Your task to perform on an android device: Go to ESPN.com Image 0: 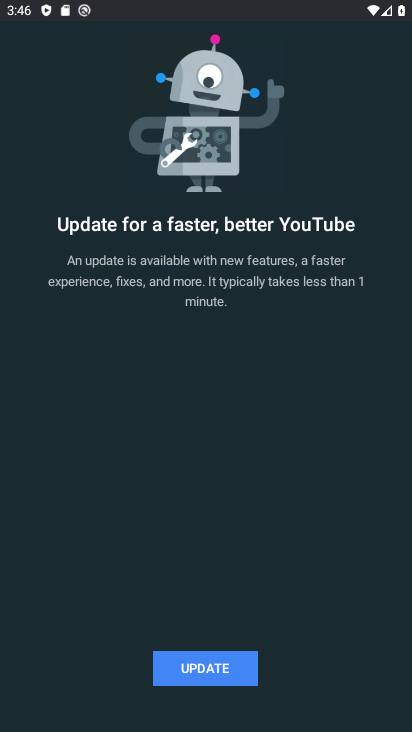
Step 0: press home button
Your task to perform on an android device: Go to ESPN.com Image 1: 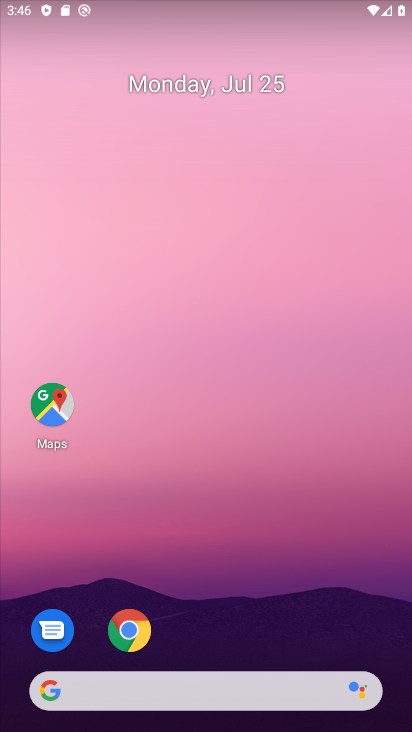
Step 1: drag from (236, 641) to (231, 107)
Your task to perform on an android device: Go to ESPN.com Image 2: 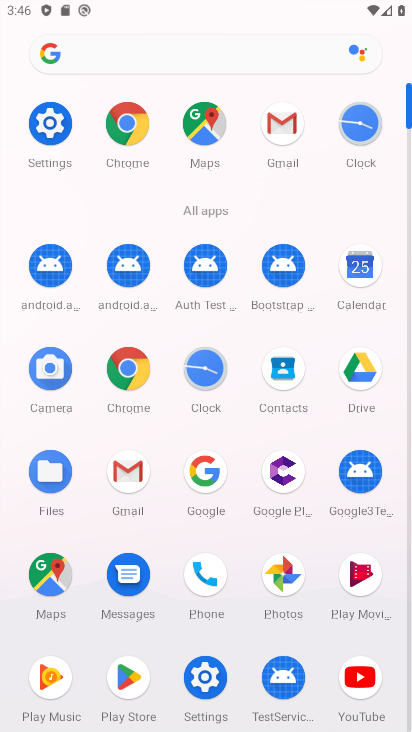
Step 2: click (129, 111)
Your task to perform on an android device: Go to ESPN.com Image 3: 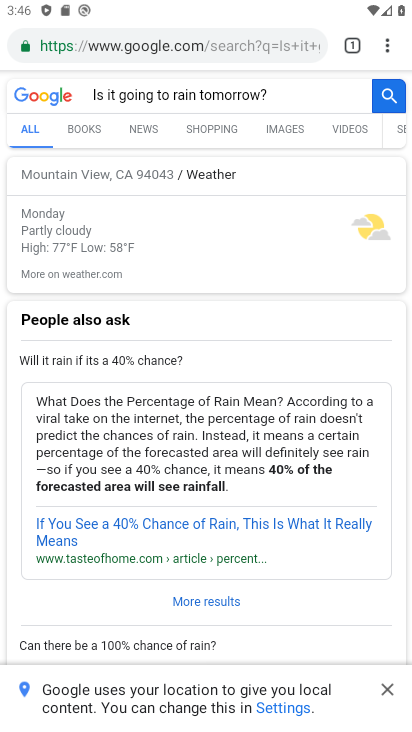
Step 3: click (355, 54)
Your task to perform on an android device: Go to ESPN.com Image 4: 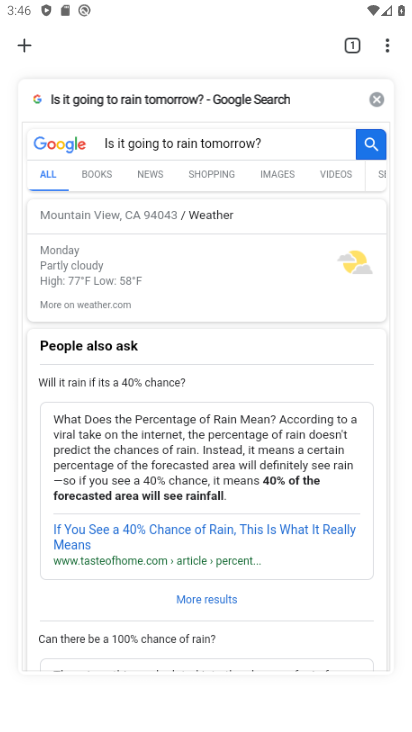
Step 4: click (28, 40)
Your task to perform on an android device: Go to ESPN.com Image 5: 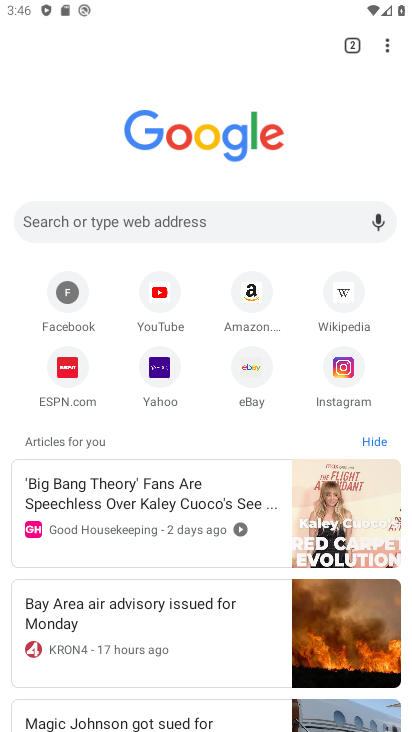
Step 5: click (71, 377)
Your task to perform on an android device: Go to ESPN.com Image 6: 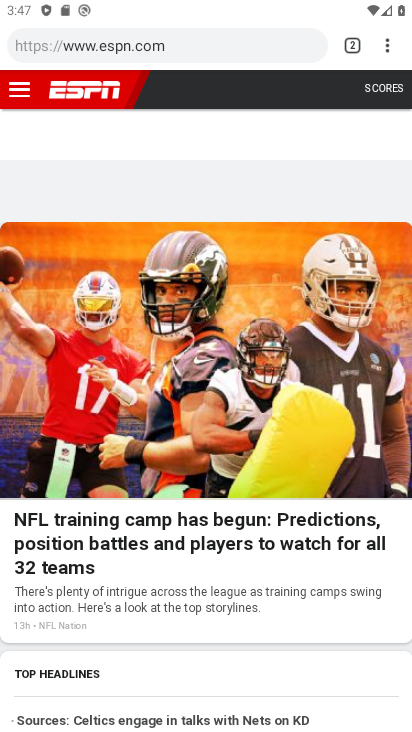
Step 6: task complete